Your task to perform on an android device: toggle notification dots Image 0: 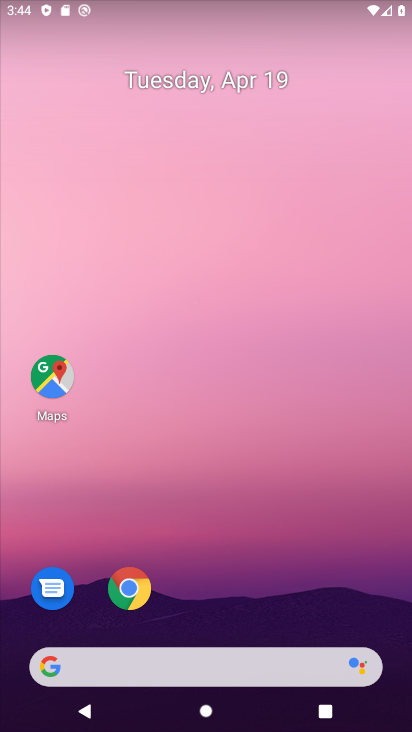
Step 0: drag from (212, 562) to (158, 79)
Your task to perform on an android device: toggle notification dots Image 1: 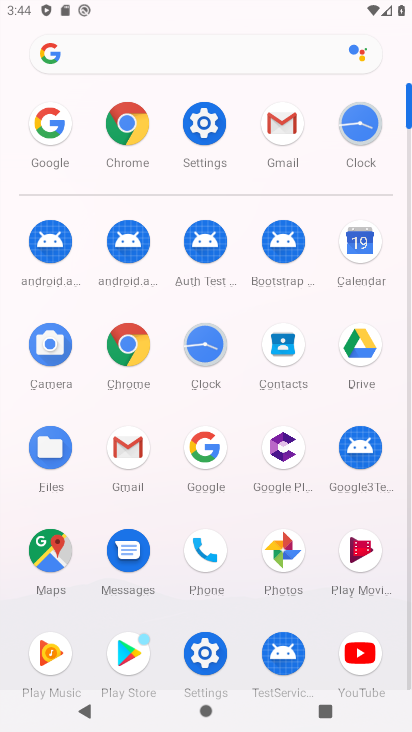
Step 1: click (200, 110)
Your task to perform on an android device: toggle notification dots Image 2: 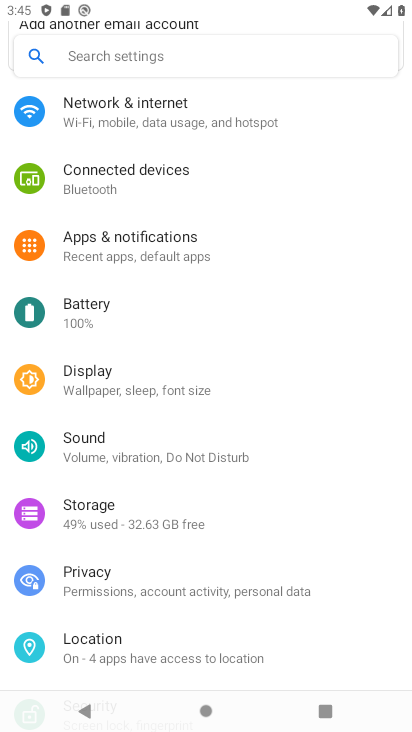
Step 2: click (115, 246)
Your task to perform on an android device: toggle notification dots Image 3: 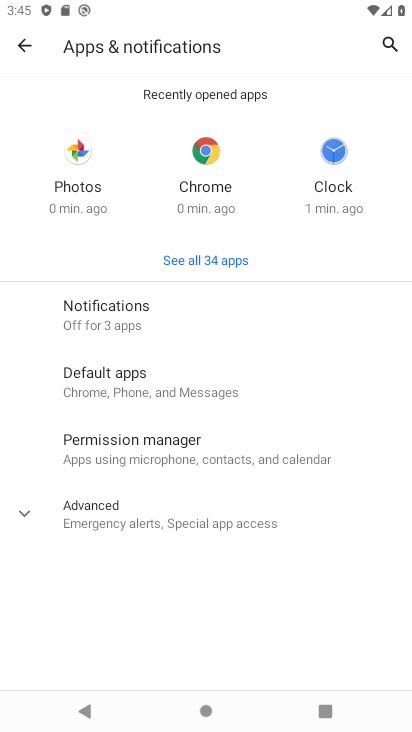
Step 3: click (154, 308)
Your task to perform on an android device: toggle notification dots Image 4: 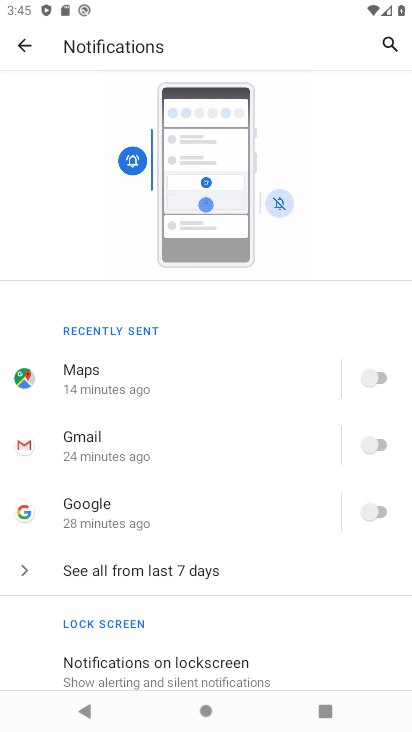
Step 4: drag from (257, 603) to (244, 244)
Your task to perform on an android device: toggle notification dots Image 5: 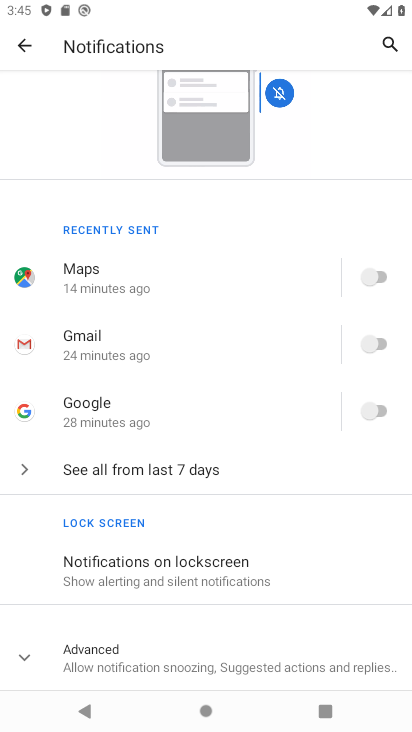
Step 5: click (183, 626)
Your task to perform on an android device: toggle notification dots Image 6: 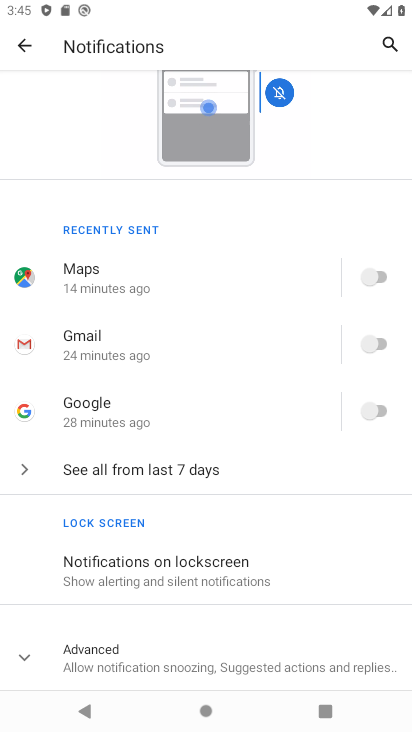
Step 6: click (164, 664)
Your task to perform on an android device: toggle notification dots Image 7: 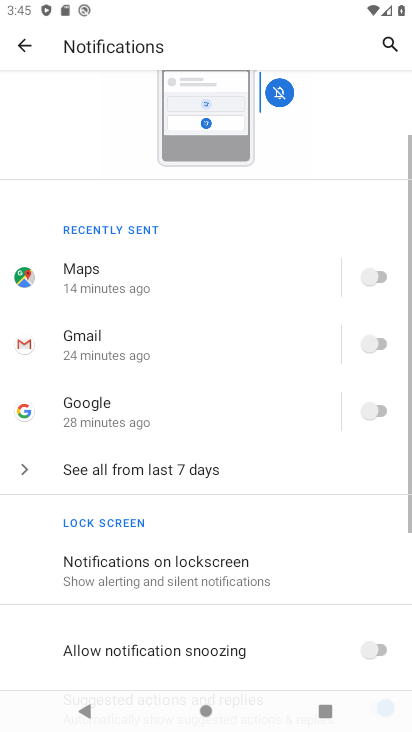
Step 7: drag from (184, 545) to (221, 157)
Your task to perform on an android device: toggle notification dots Image 8: 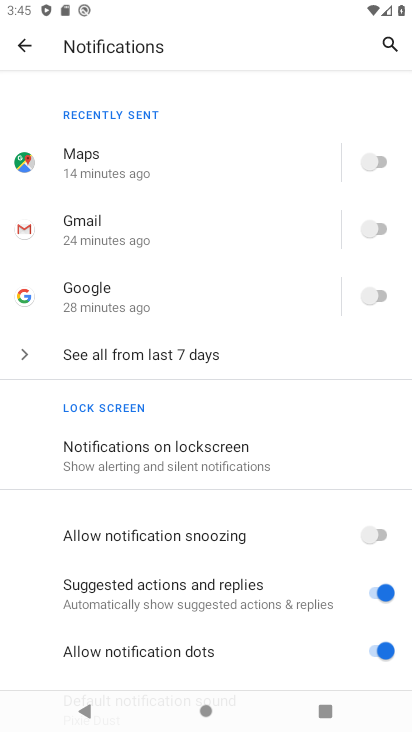
Step 8: click (378, 644)
Your task to perform on an android device: toggle notification dots Image 9: 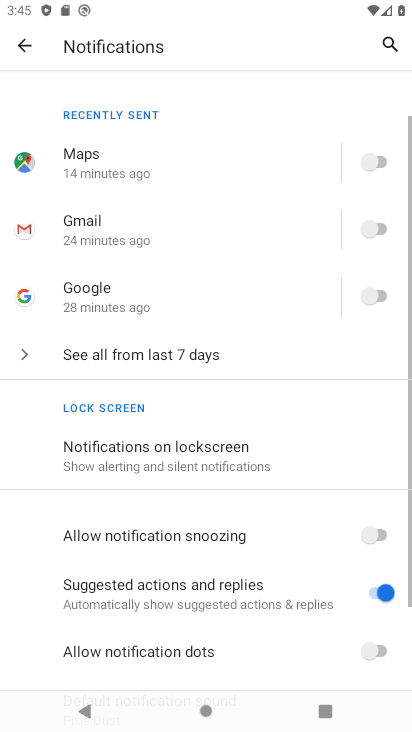
Step 9: task complete